Your task to perform on an android device: Search for seafood restaurants on Google Maps Image 0: 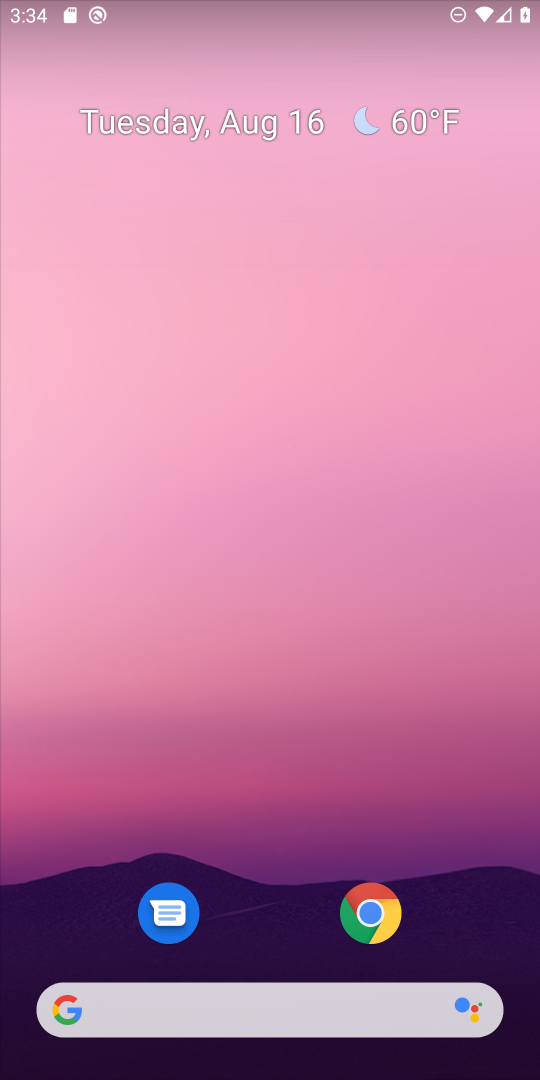
Step 0: drag from (504, 956) to (485, 203)
Your task to perform on an android device: Search for seafood restaurants on Google Maps Image 1: 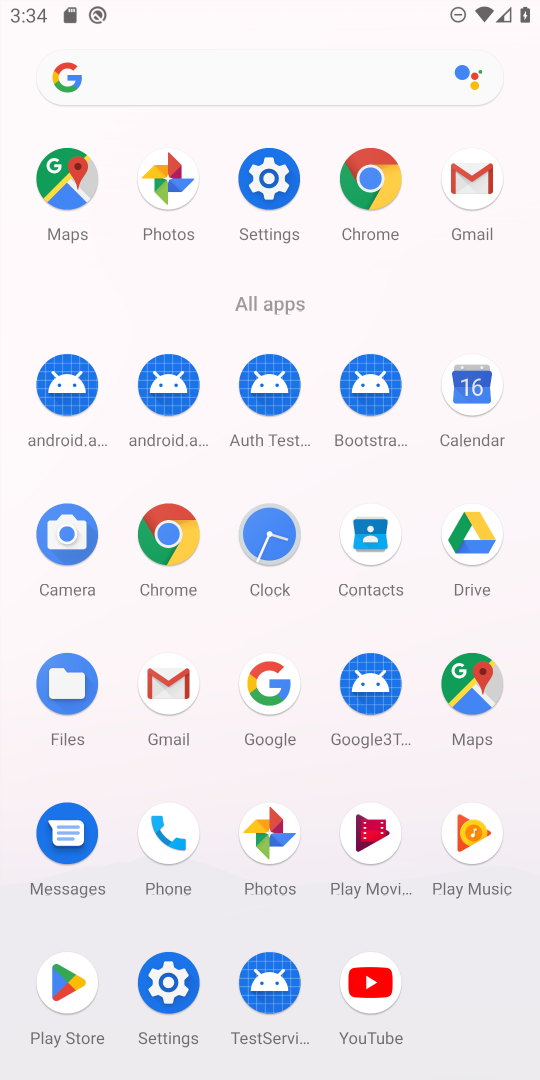
Step 1: click (471, 687)
Your task to perform on an android device: Search for seafood restaurants on Google Maps Image 2: 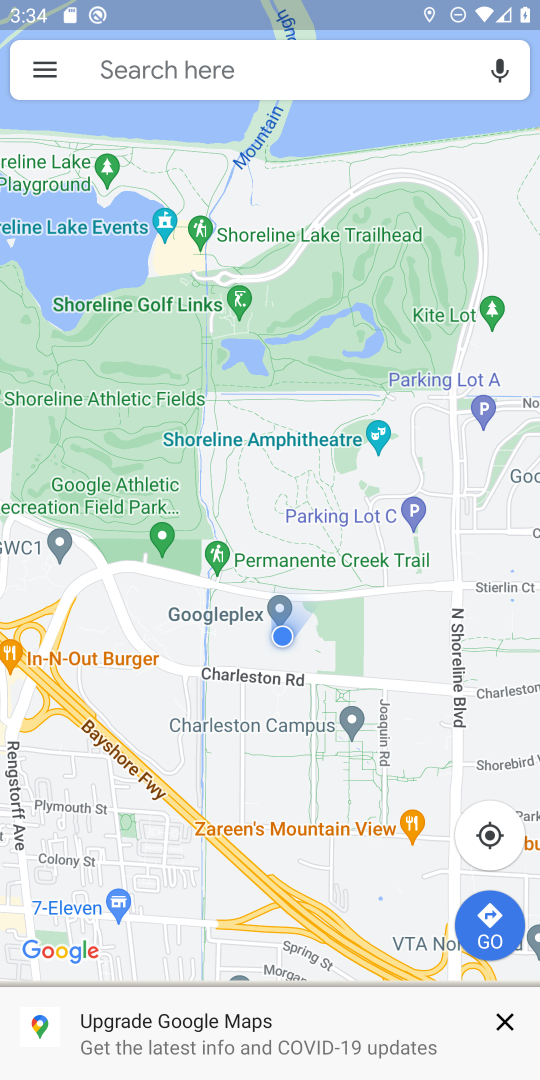
Step 2: click (204, 68)
Your task to perform on an android device: Search for seafood restaurants on Google Maps Image 3: 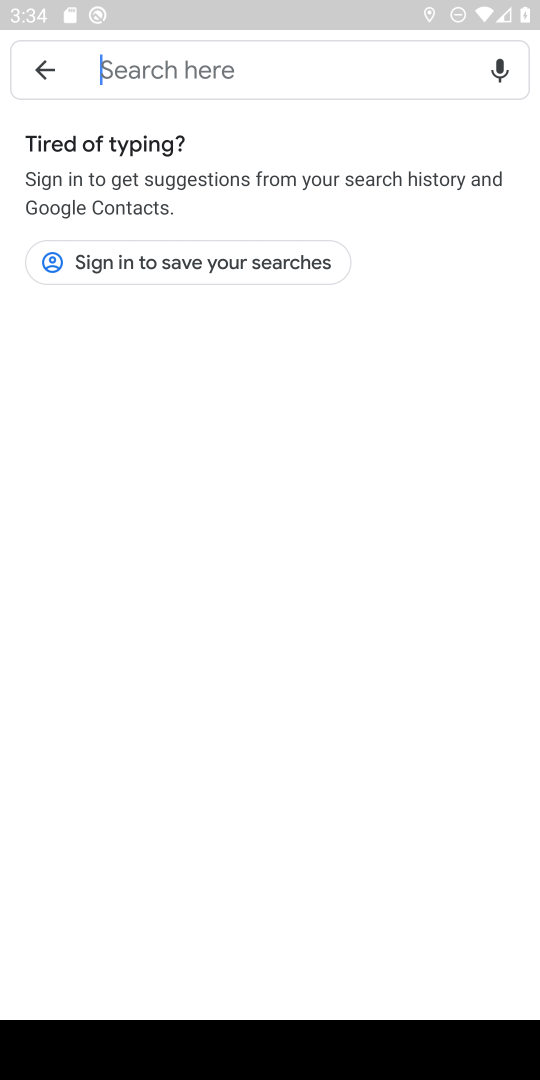
Step 3: type "seafood restaurants"
Your task to perform on an android device: Search for seafood restaurants on Google Maps Image 4: 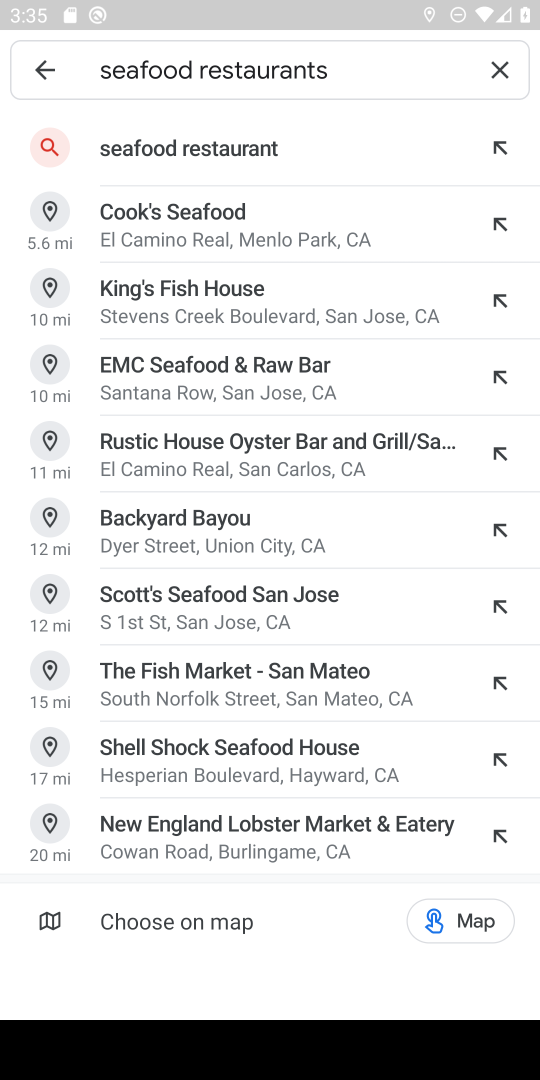
Step 4: click (185, 142)
Your task to perform on an android device: Search for seafood restaurants on Google Maps Image 5: 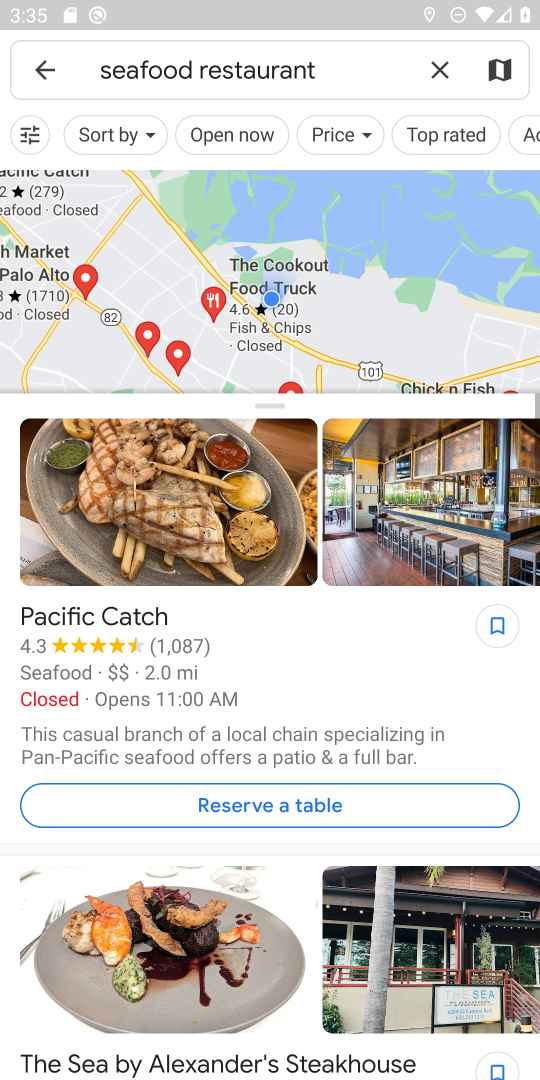
Step 5: task complete